Your task to perform on an android device: toggle notification dots Image 0: 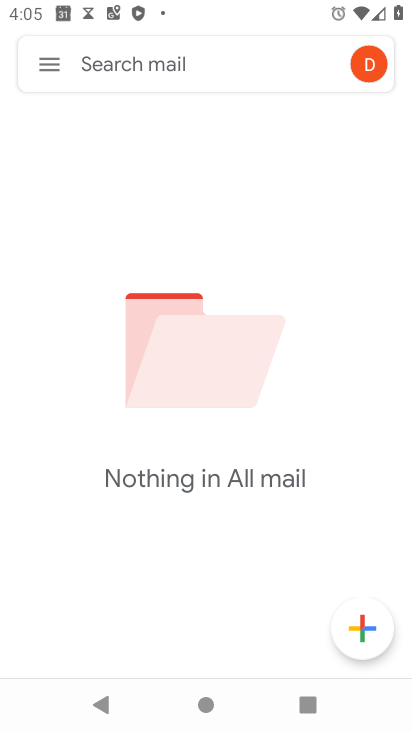
Step 0: press home button
Your task to perform on an android device: toggle notification dots Image 1: 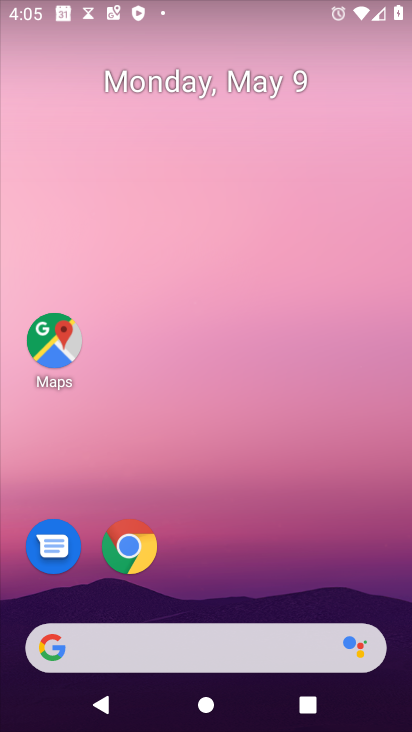
Step 1: drag from (267, 503) to (220, 2)
Your task to perform on an android device: toggle notification dots Image 2: 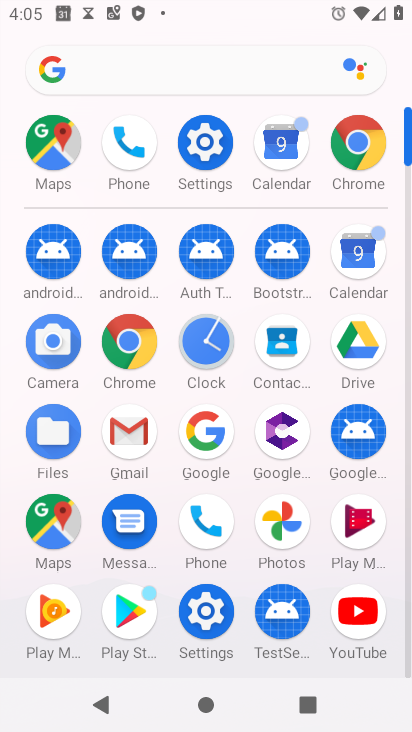
Step 2: click (213, 217)
Your task to perform on an android device: toggle notification dots Image 3: 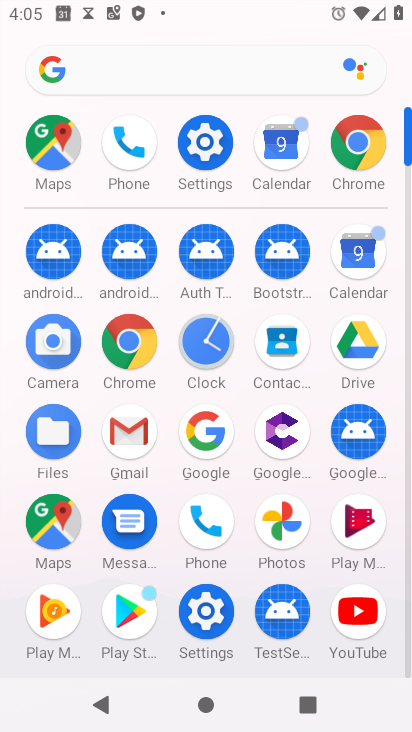
Step 3: click (207, 158)
Your task to perform on an android device: toggle notification dots Image 4: 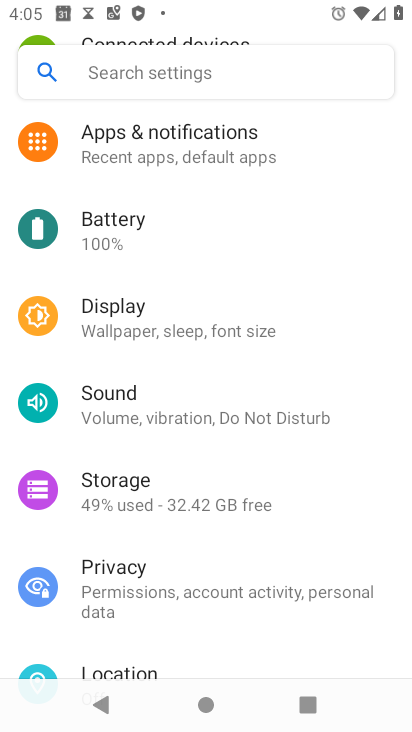
Step 4: click (186, 155)
Your task to perform on an android device: toggle notification dots Image 5: 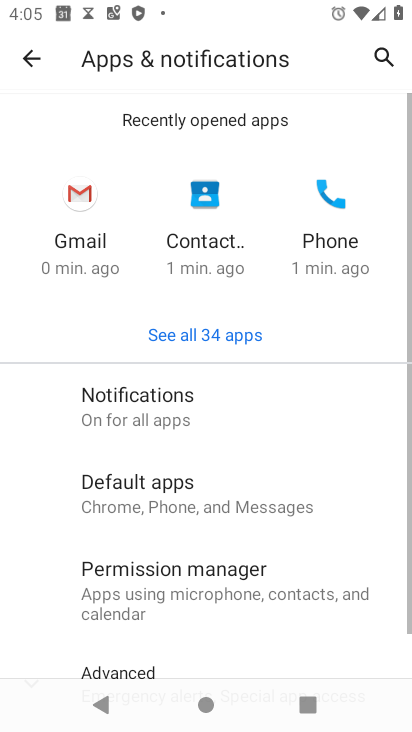
Step 5: click (150, 431)
Your task to perform on an android device: toggle notification dots Image 6: 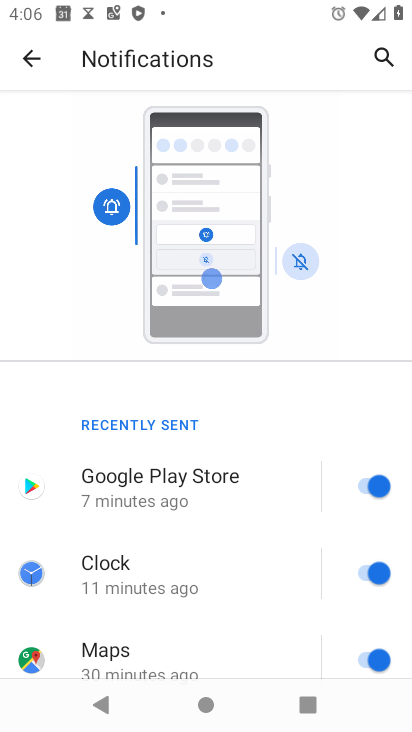
Step 6: drag from (208, 658) to (151, 261)
Your task to perform on an android device: toggle notification dots Image 7: 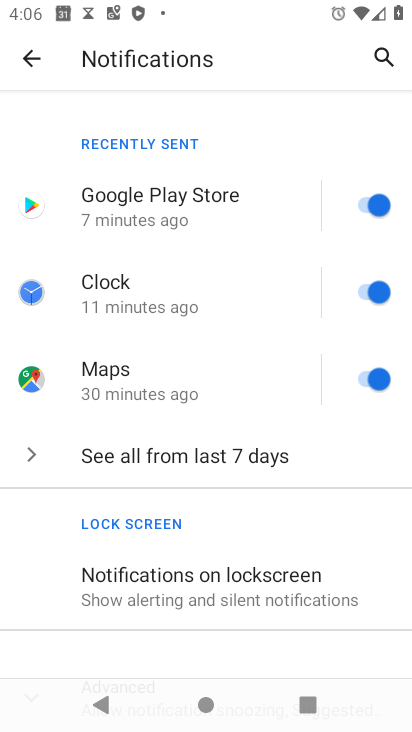
Step 7: drag from (170, 559) to (213, 195)
Your task to perform on an android device: toggle notification dots Image 8: 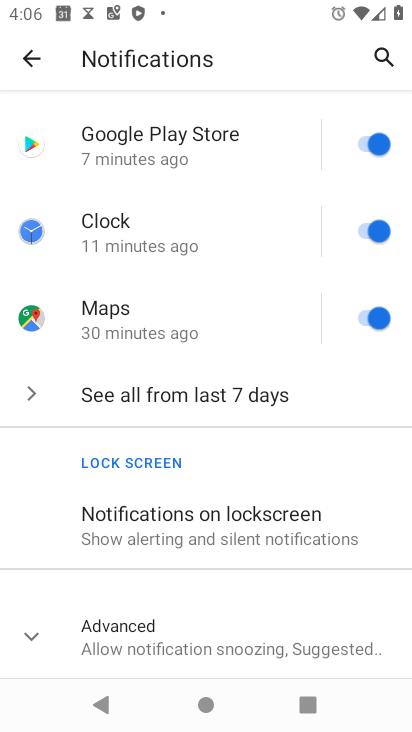
Step 8: drag from (209, 457) to (240, 106)
Your task to perform on an android device: toggle notification dots Image 9: 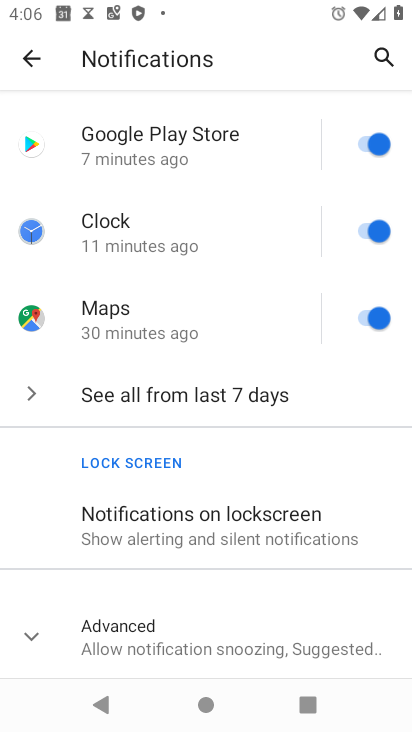
Step 9: click (143, 628)
Your task to perform on an android device: toggle notification dots Image 10: 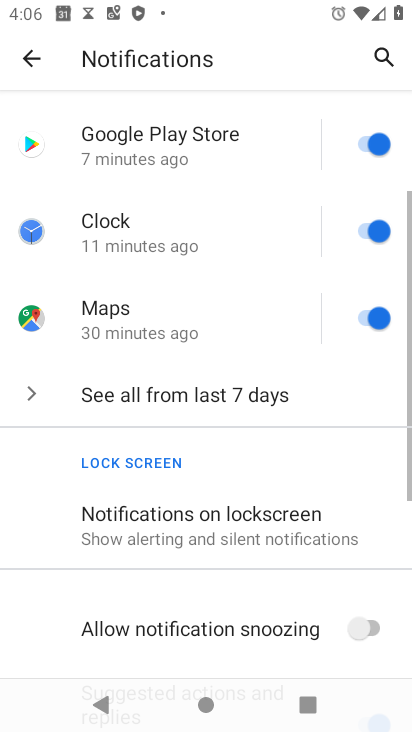
Step 10: drag from (150, 619) to (171, 285)
Your task to perform on an android device: toggle notification dots Image 11: 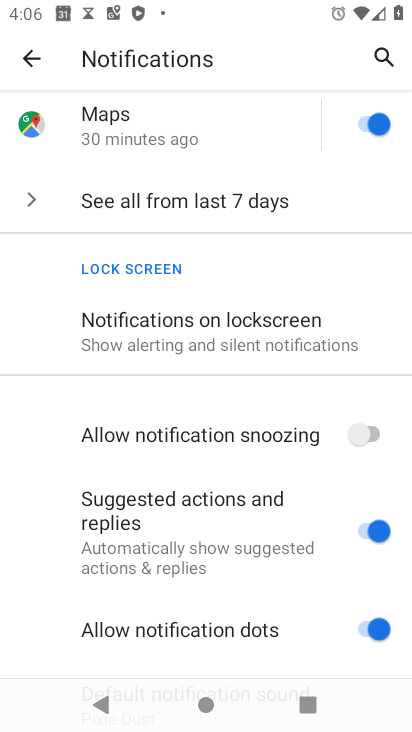
Step 11: drag from (235, 570) to (233, 222)
Your task to perform on an android device: toggle notification dots Image 12: 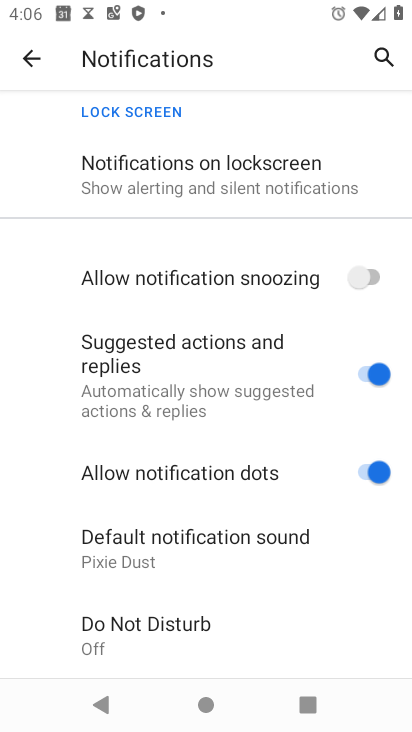
Step 12: click (377, 484)
Your task to perform on an android device: toggle notification dots Image 13: 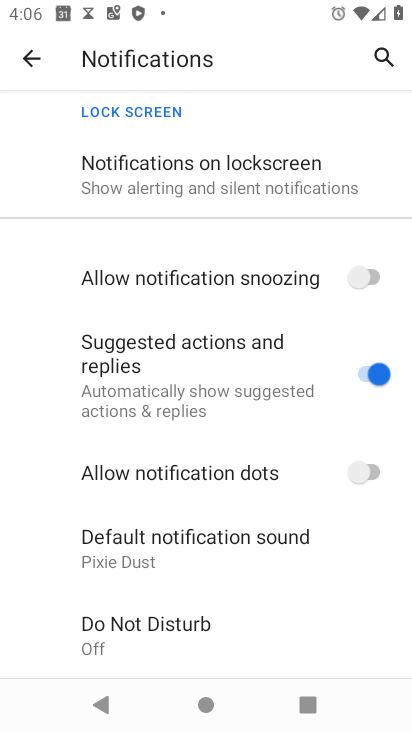
Step 13: task complete